Your task to perform on an android device: Show me recent news Image 0: 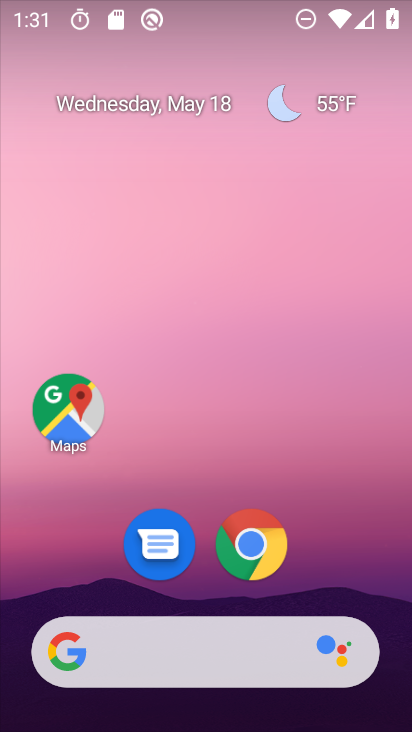
Step 0: click (193, 651)
Your task to perform on an android device: Show me recent news Image 1: 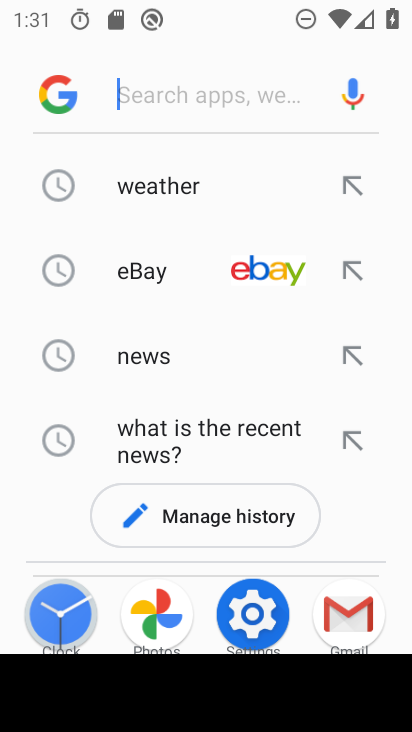
Step 1: type "recent news"
Your task to perform on an android device: Show me recent news Image 2: 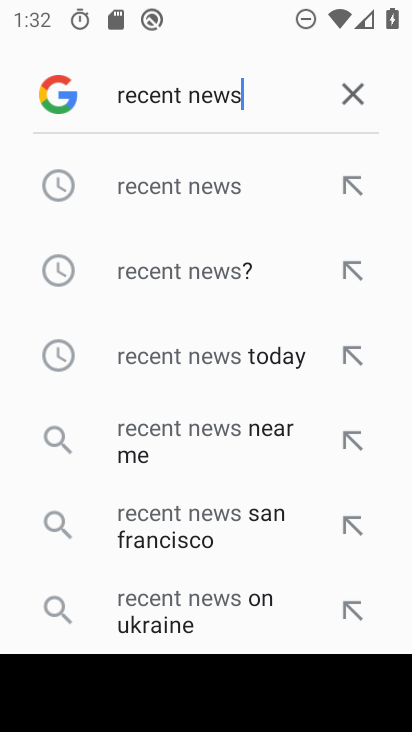
Step 2: click (219, 188)
Your task to perform on an android device: Show me recent news Image 3: 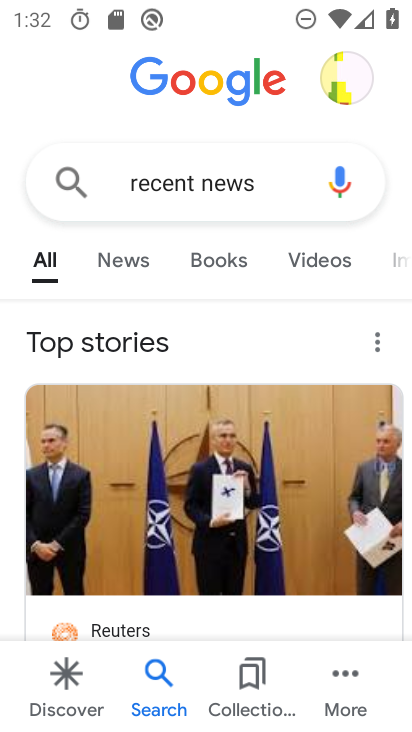
Step 3: click (127, 255)
Your task to perform on an android device: Show me recent news Image 4: 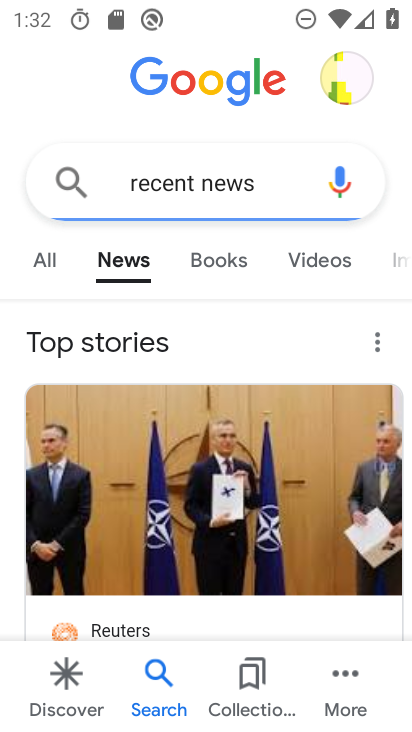
Step 4: task complete